Your task to perform on an android device: move a message to another label in the gmail app Image 0: 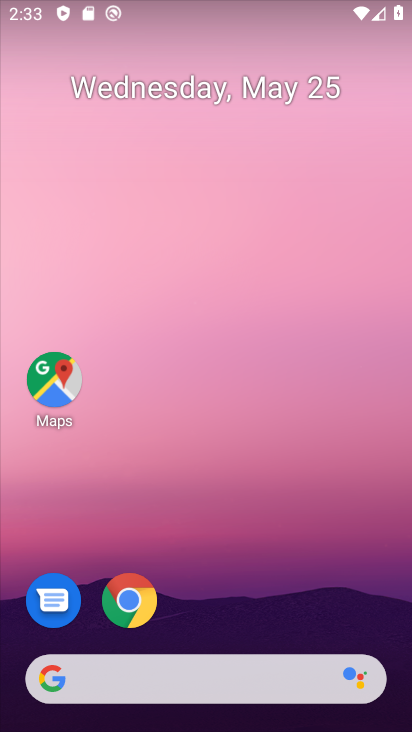
Step 0: drag from (23, 514) to (271, 126)
Your task to perform on an android device: move a message to another label in the gmail app Image 1: 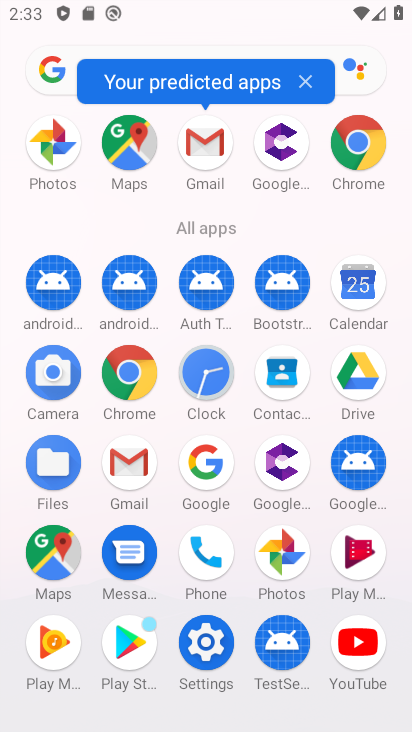
Step 1: click (143, 456)
Your task to perform on an android device: move a message to another label in the gmail app Image 2: 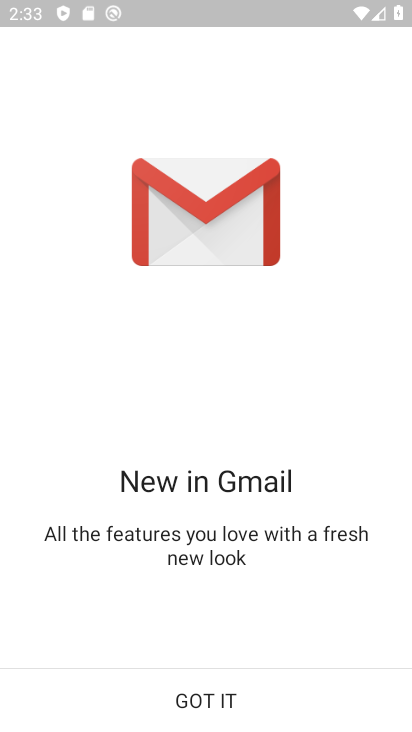
Step 2: click (201, 698)
Your task to perform on an android device: move a message to another label in the gmail app Image 3: 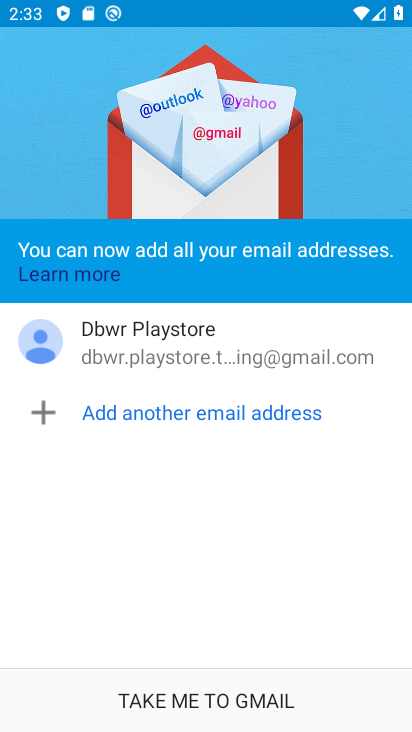
Step 3: click (213, 702)
Your task to perform on an android device: move a message to another label in the gmail app Image 4: 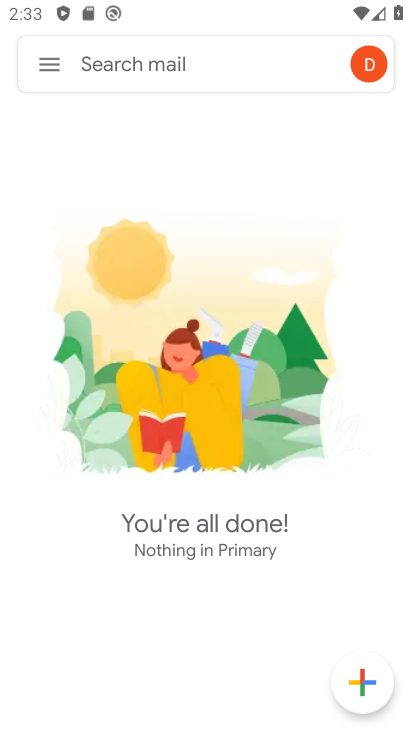
Step 4: click (53, 65)
Your task to perform on an android device: move a message to another label in the gmail app Image 5: 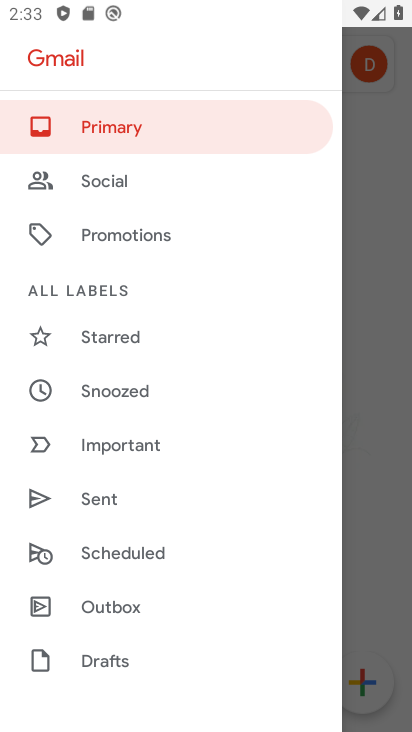
Step 5: task complete